Your task to perform on an android device: What's on my calendar today? Image 0: 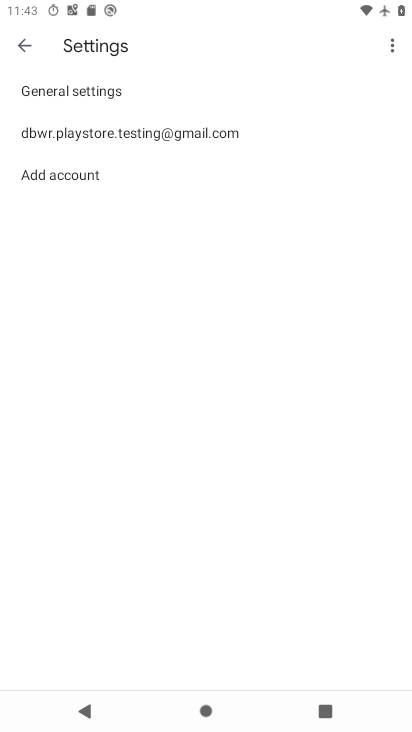
Step 0: press home button
Your task to perform on an android device: What's on my calendar today? Image 1: 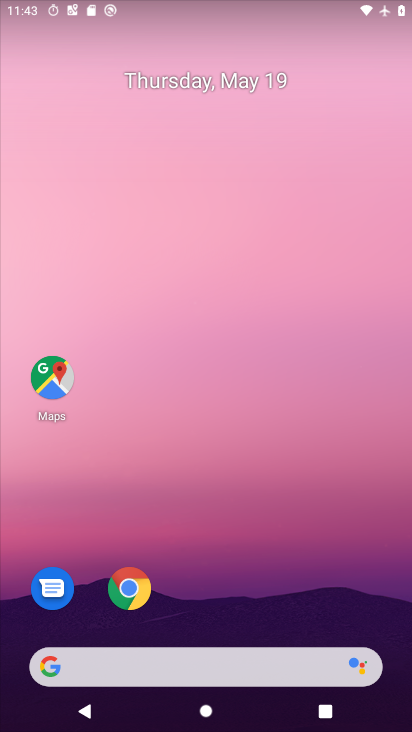
Step 1: drag from (190, 667) to (319, 123)
Your task to perform on an android device: What's on my calendar today? Image 2: 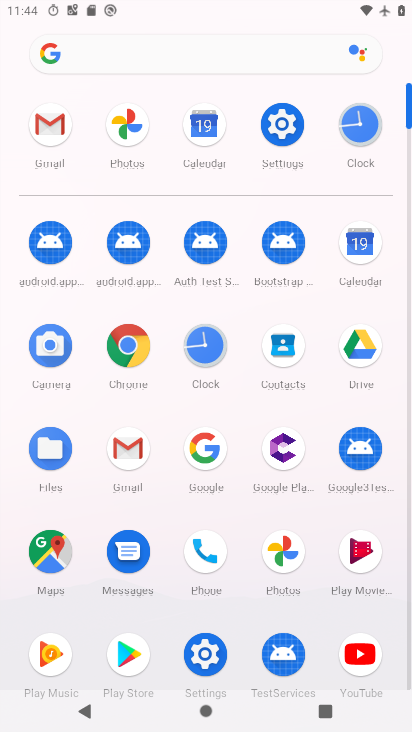
Step 2: click (204, 134)
Your task to perform on an android device: What's on my calendar today? Image 3: 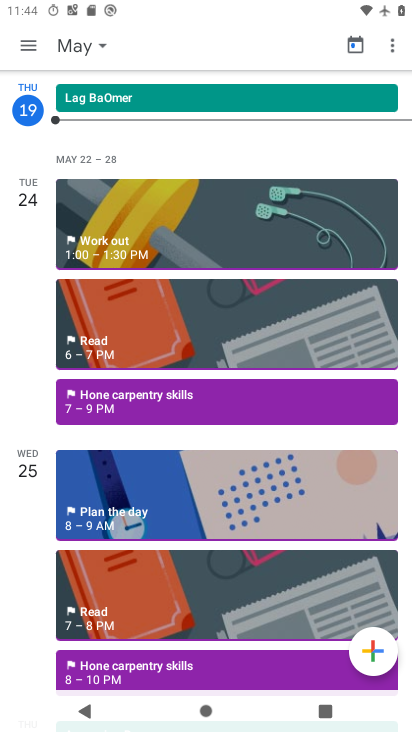
Step 3: click (84, 48)
Your task to perform on an android device: What's on my calendar today? Image 4: 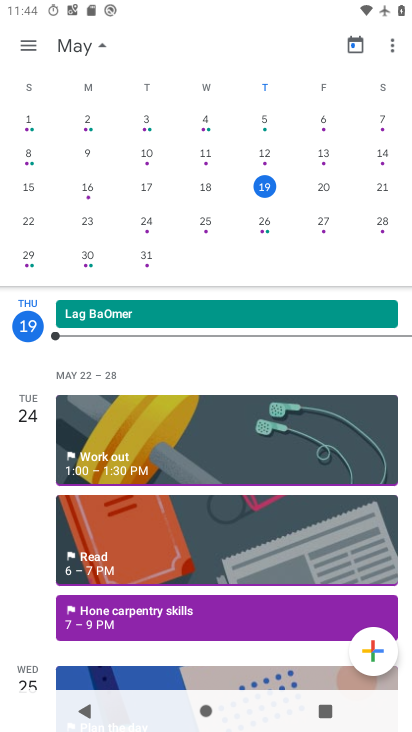
Step 4: click (265, 191)
Your task to perform on an android device: What's on my calendar today? Image 5: 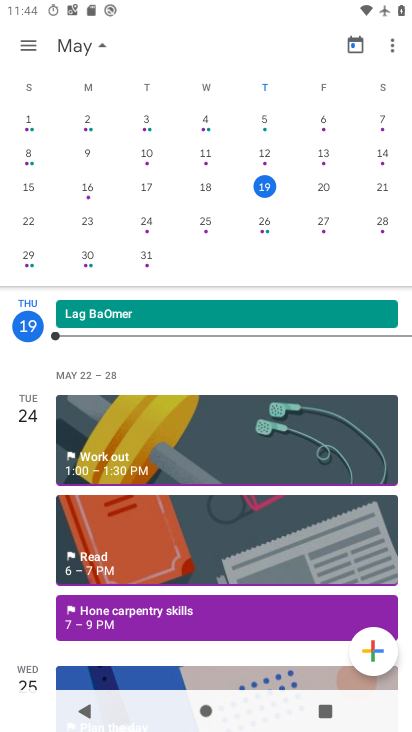
Step 5: click (268, 190)
Your task to perform on an android device: What's on my calendar today? Image 6: 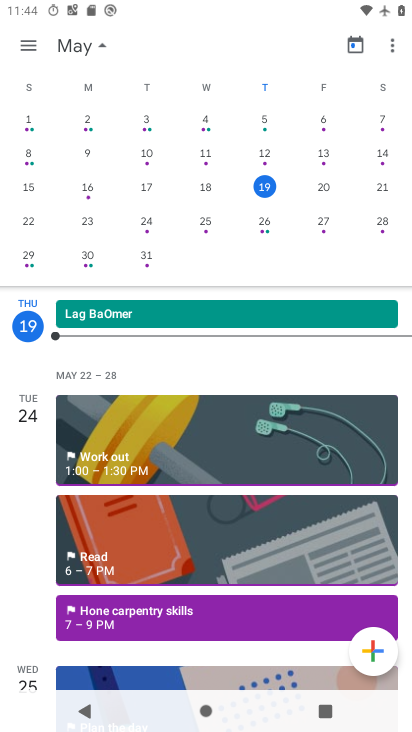
Step 6: click (26, 49)
Your task to perform on an android device: What's on my calendar today? Image 7: 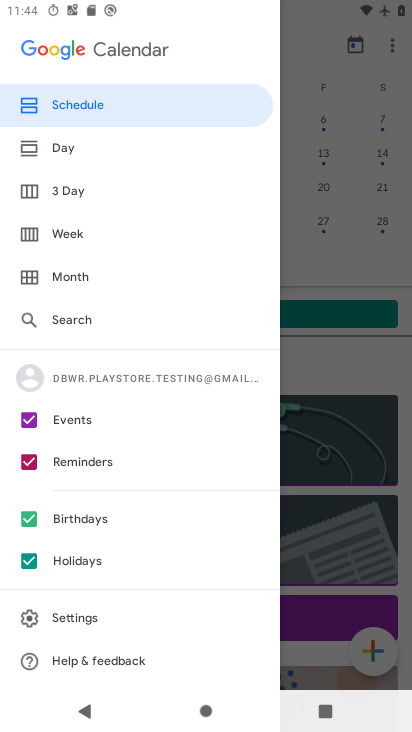
Step 7: click (92, 111)
Your task to perform on an android device: What's on my calendar today? Image 8: 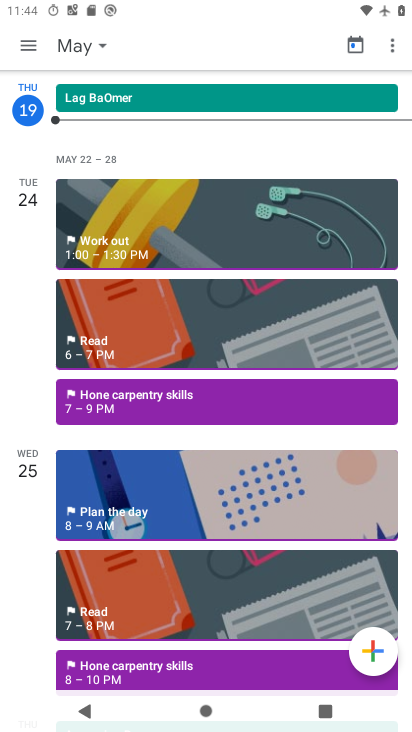
Step 8: task complete